Your task to perform on an android device: change text size in settings app Image 0: 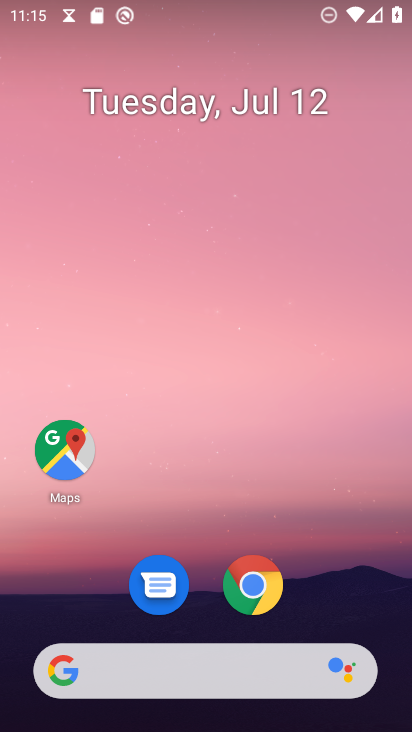
Step 0: press home button
Your task to perform on an android device: change text size in settings app Image 1: 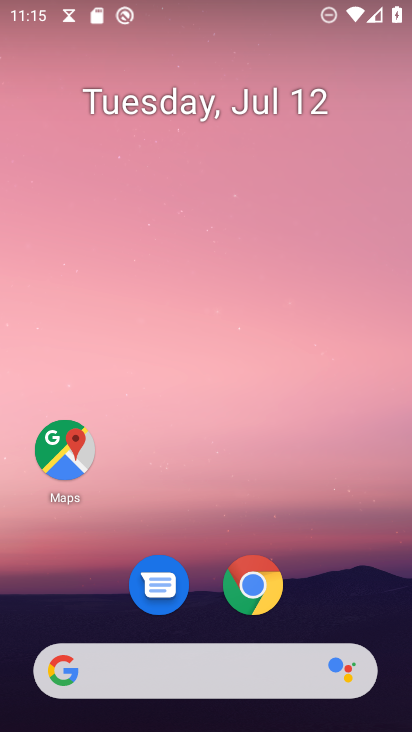
Step 1: drag from (247, 676) to (311, 274)
Your task to perform on an android device: change text size in settings app Image 2: 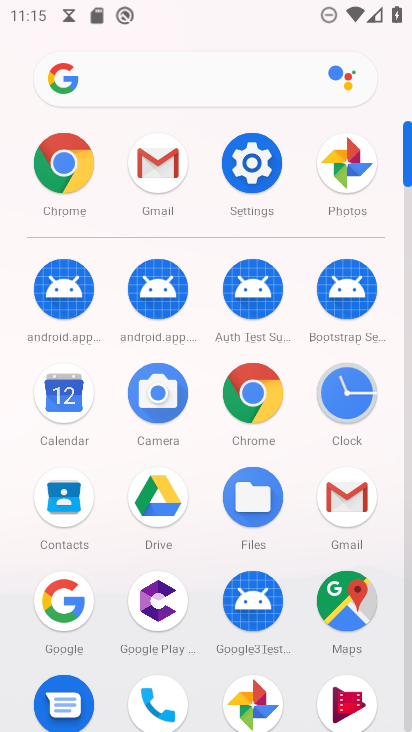
Step 2: click (257, 172)
Your task to perform on an android device: change text size in settings app Image 3: 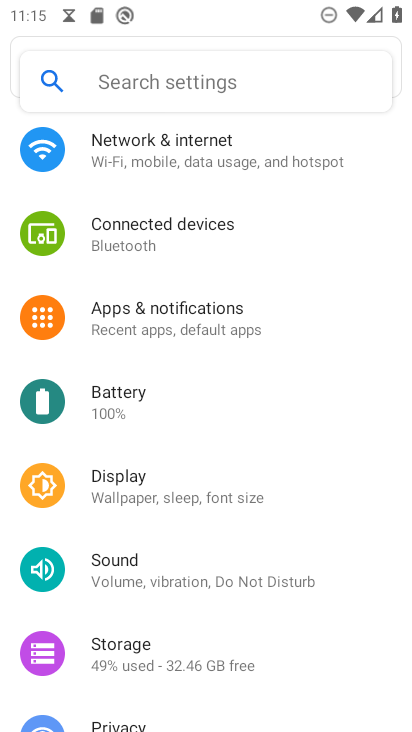
Step 3: click (178, 485)
Your task to perform on an android device: change text size in settings app Image 4: 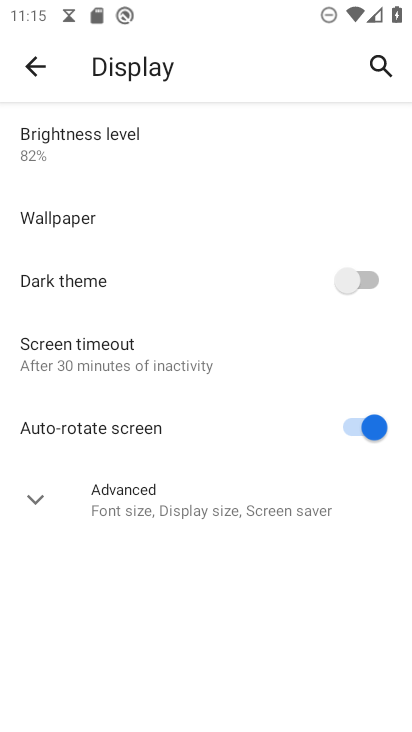
Step 4: click (125, 501)
Your task to perform on an android device: change text size in settings app Image 5: 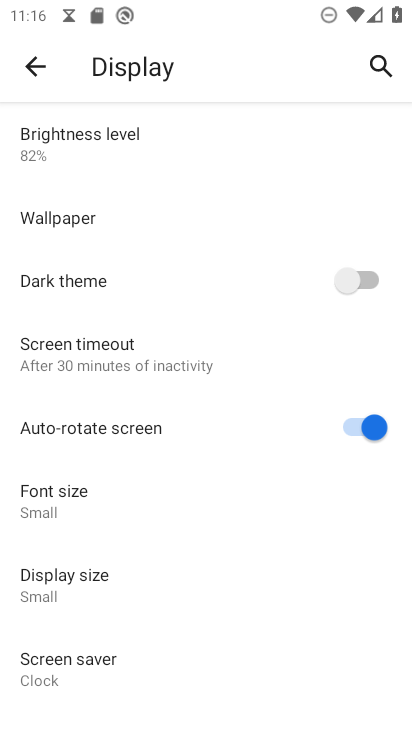
Step 5: click (75, 486)
Your task to perform on an android device: change text size in settings app Image 6: 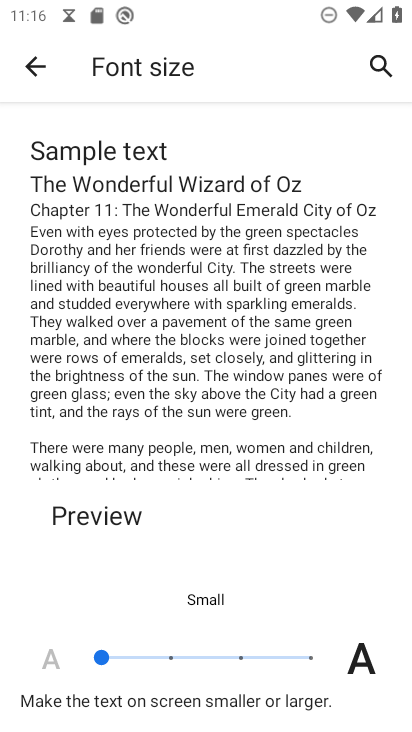
Step 6: click (172, 658)
Your task to perform on an android device: change text size in settings app Image 7: 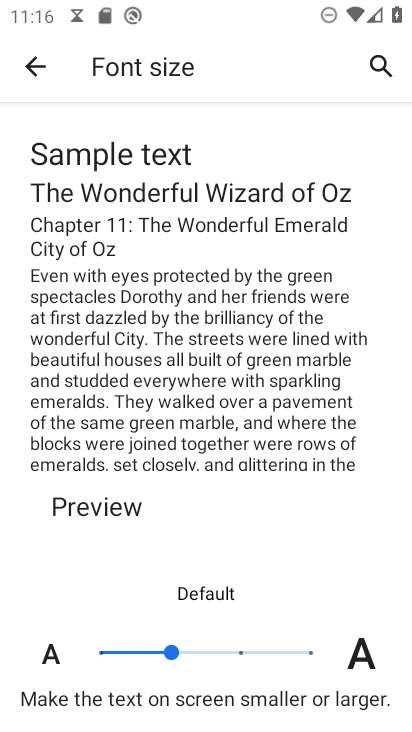
Step 7: task complete